Your task to perform on an android device: Open Yahoo.com Image 0: 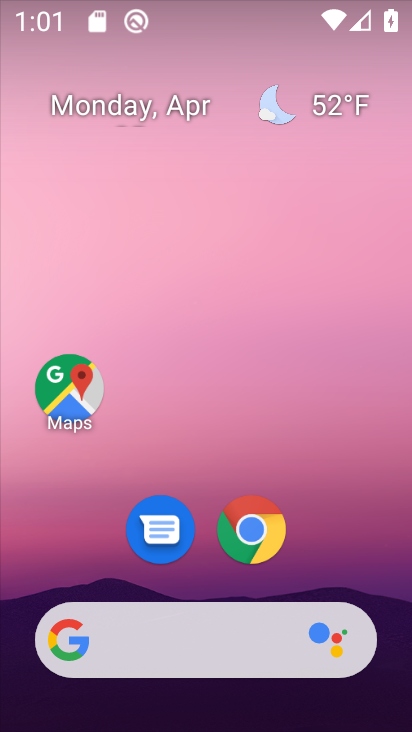
Step 0: click (260, 528)
Your task to perform on an android device: Open Yahoo.com Image 1: 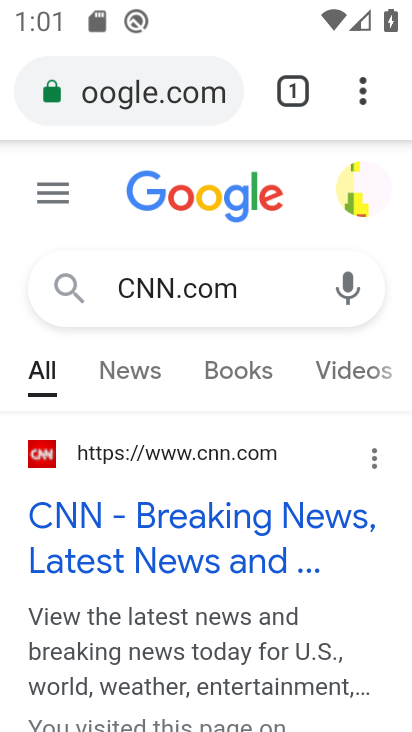
Step 1: click (231, 96)
Your task to perform on an android device: Open Yahoo.com Image 2: 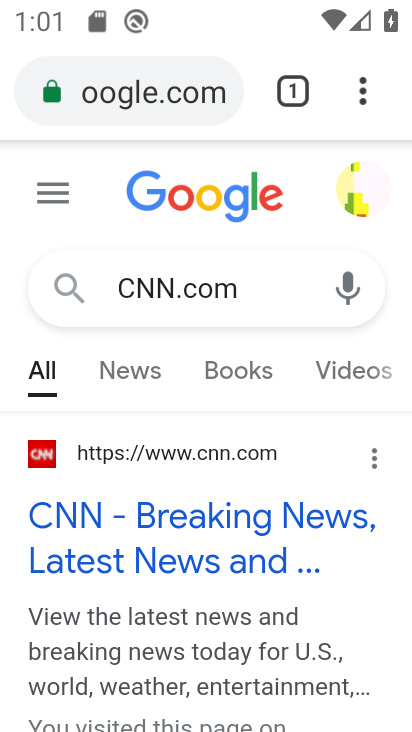
Step 2: click (235, 89)
Your task to perform on an android device: Open Yahoo.com Image 3: 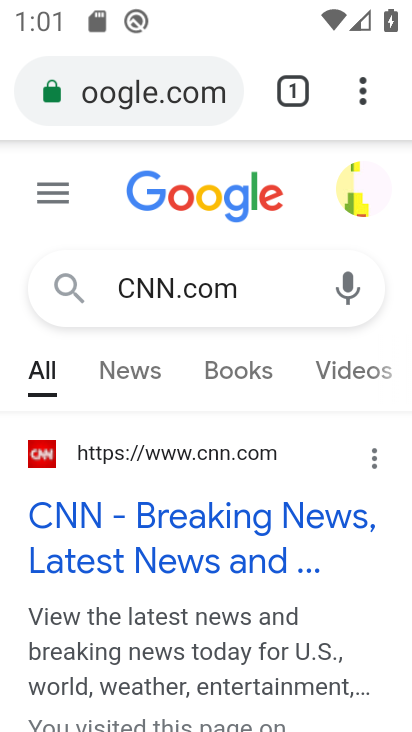
Step 3: click (226, 93)
Your task to perform on an android device: Open Yahoo.com Image 4: 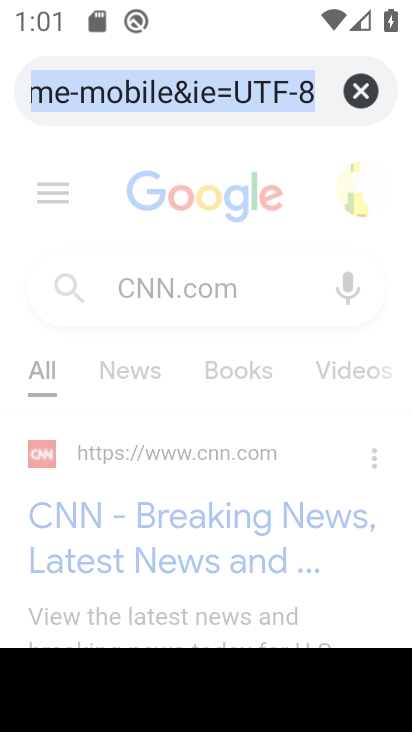
Step 4: click (335, 83)
Your task to perform on an android device: Open Yahoo.com Image 5: 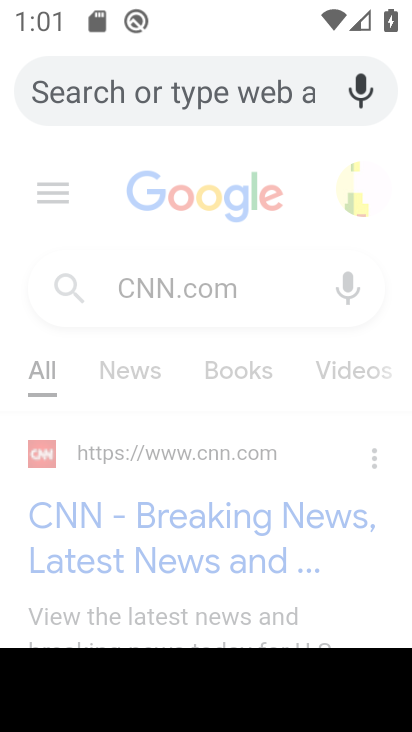
Step 5: type "Yahoo.com"
Your task to perform on an android device: Open Yahoo.com Image 6: 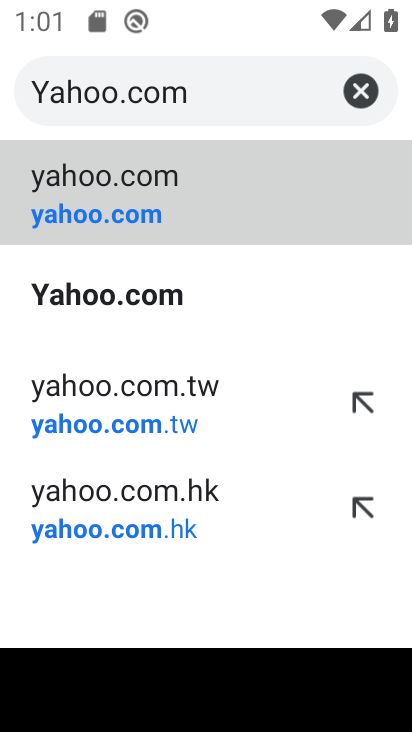
Step 6: click (83, 296)
Your task to perform on an android device: Open Yahoo.com Image 7: 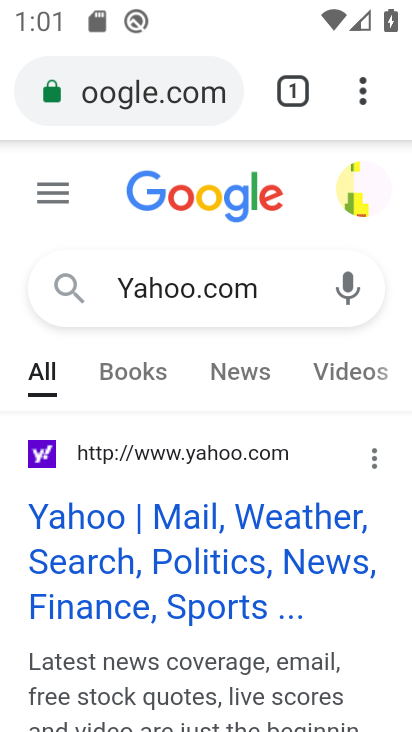
Step 7: task complete